Your task to perform on an android device: Go to Yahoo.com Image 0: 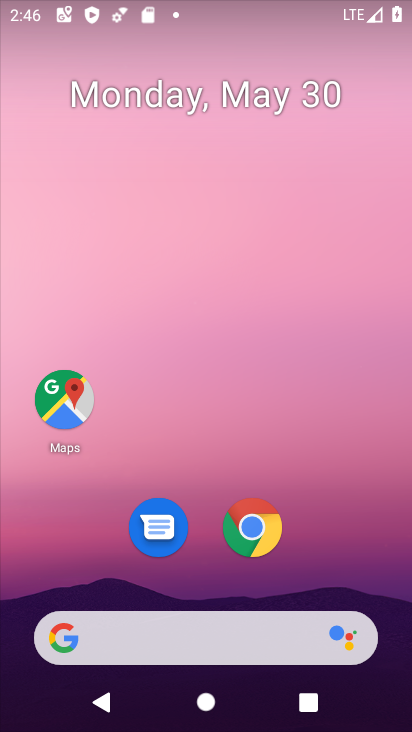
Step 0: click (248, 533)
Your task to perform on an android device: Go to Yahoo.com Image 1: 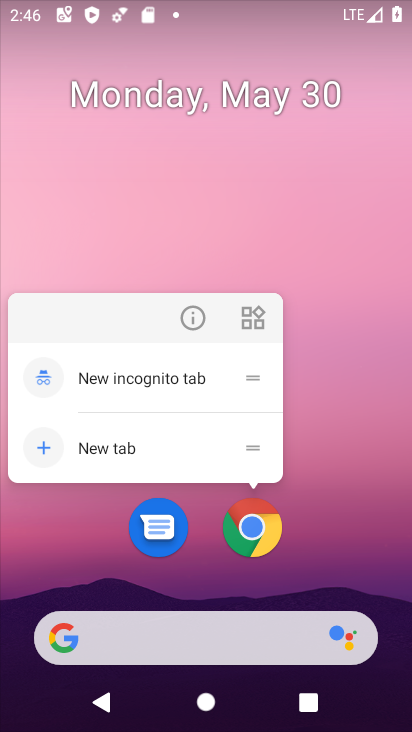
Step 1: click (245, 524)
Your task to perform on an android device: Go to Yahoo.com Image 2: 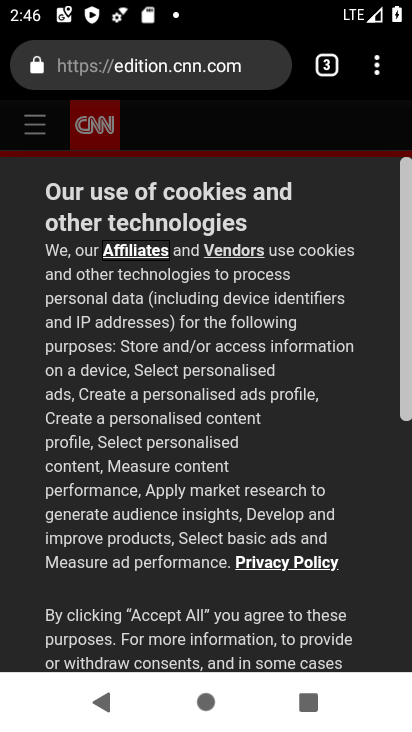
Step 2: click (192, 73)
Your task to perform on an android device: Go to Yahoo.com Image 3: 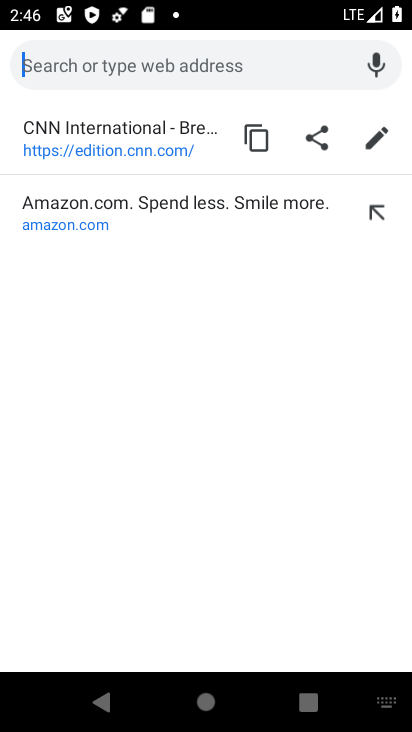
Step 3: type " Yahoo.com"
Your task to perform on an android device: Go to Yahoo.com Image 4: 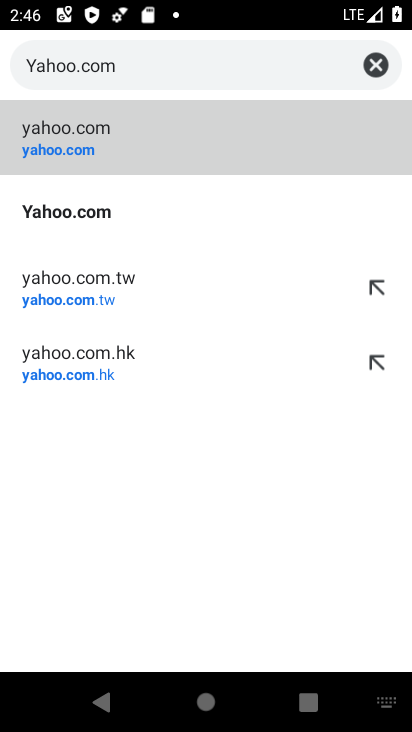
Step 4: click (52, 148)
Your task to perform on an android device: Go to Yahoo.com Image 5: 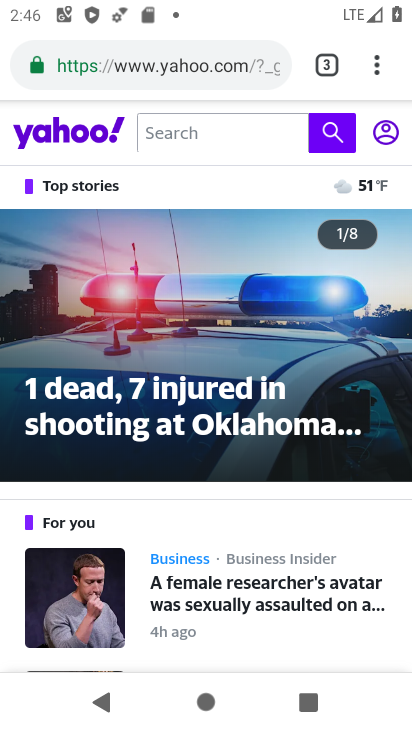
Step 5: task complete